Your task to perform on an android device: Is it going to rain tomorrow? Image 0: 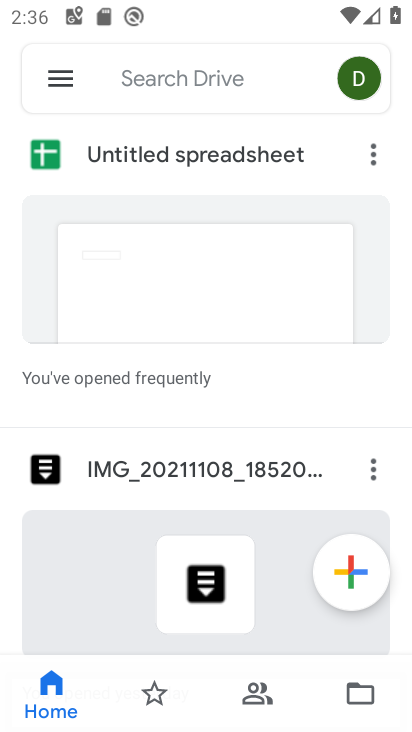
Step 0: press back button
Your task to perform on an android device: Is it going to rain tomorrow? Image 1: 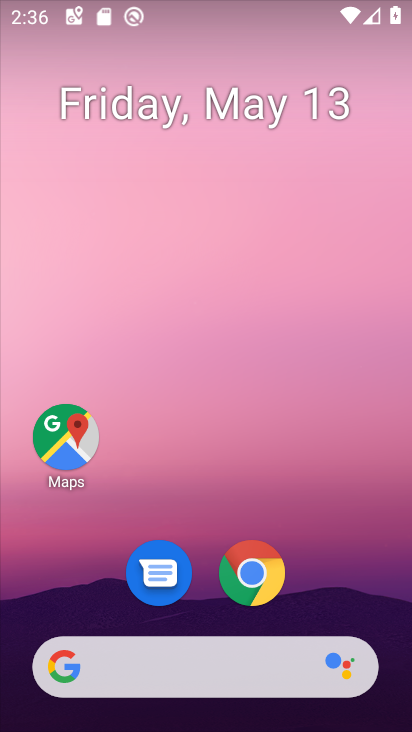
Step 1: click (324, 571)
Your task to perform on an android device: Is it going to rain tomorrow? Image 2: 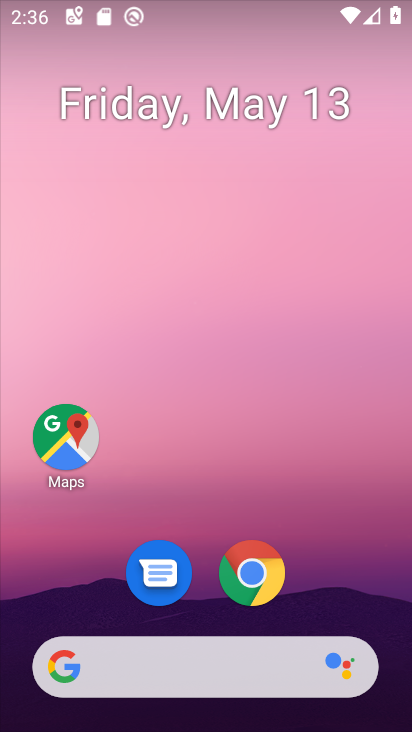
Step 2: click (374, 468)
Your task to perform on an android device: Is it going to rain tomorrow? Image 3: 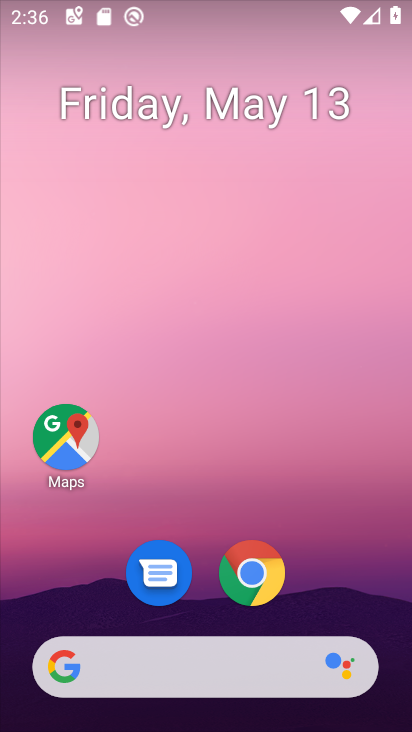
Step 3: drag from (7, 205) to (328, 489)
Your task to perform on an android device: Is it going to rain tomorrow? Image 4: 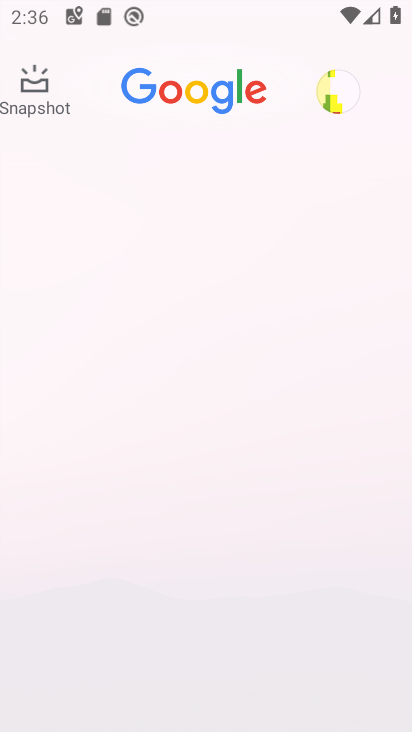
Step 4: drag from (38, 186) to (394, 521)
Your task to perform on an android device: Is it going to rain tomorrow? Image 5: 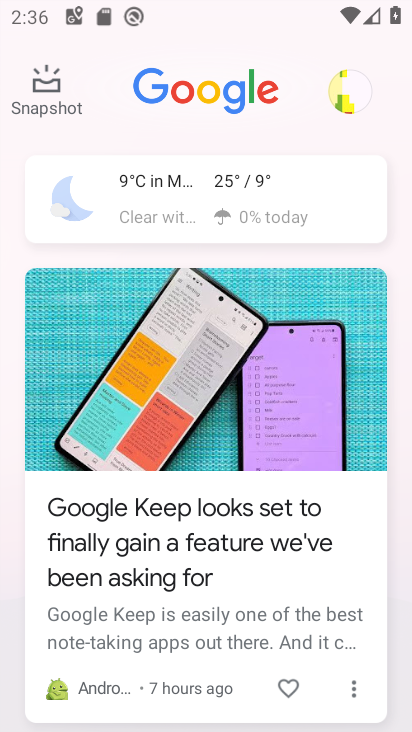
Step 5: click (194, 202)
Your task to perform on an android device: Is it going to rain tomorrow? Image 6: 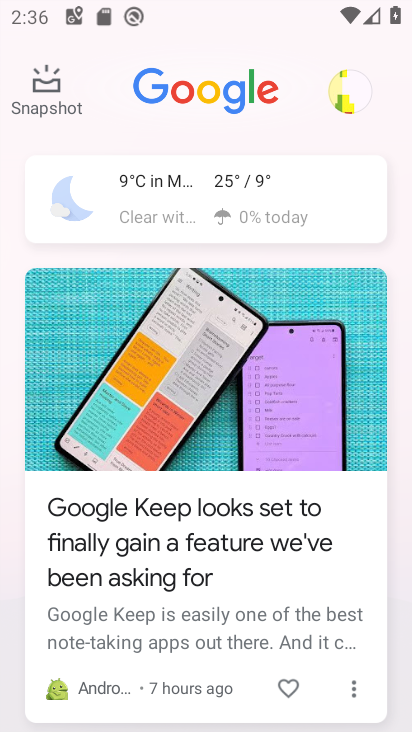
Step 6: click (193, 202)
Your task to perform on an android device: Is it going to rain tomorrow? Image 7: 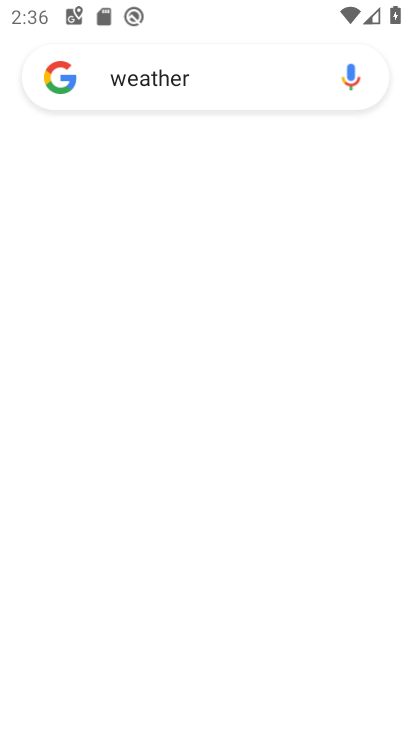
Step 7: click (187, 201)
Your task to perform on an android device: Is it going to rain tomorrow? Image 8: 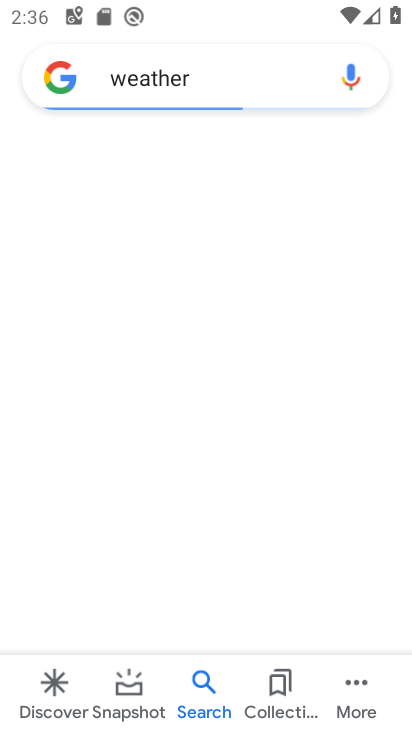
Step 8: click (187, 201)
Your task to perform on an android device: Is it going to rain tomorrow? Image 9: 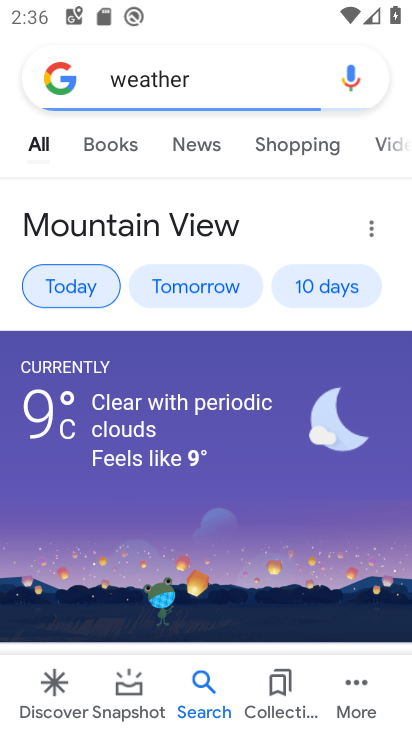
Step 9: click (186, 202)
Your task to perform on an android device: Is it going to rain tomorrow? Image 10: 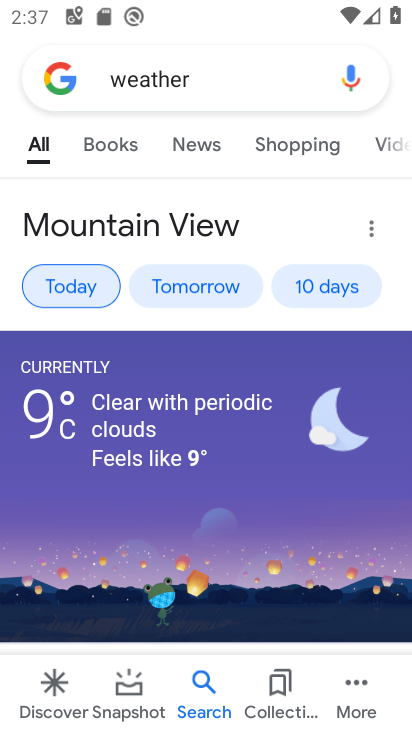
Step 10: drag from (190, 467) to (190, 165)
Your task to perform on an android device: Is it going to rain tomorrow? Image 11: 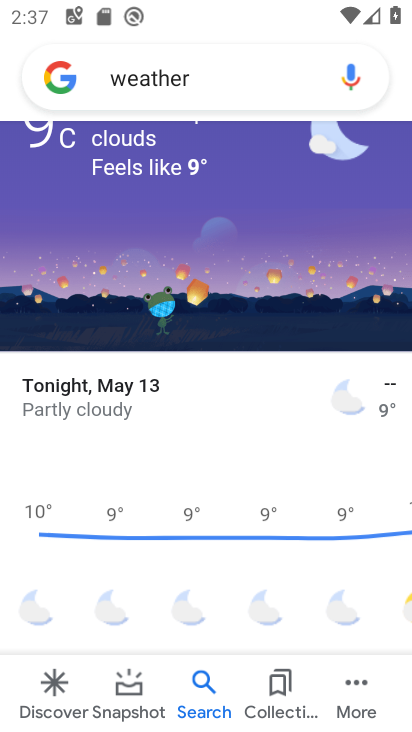
Step 11: click (191, 280)
Your task to perform on an android device: Is it going to rain tomorrow? Image 12: 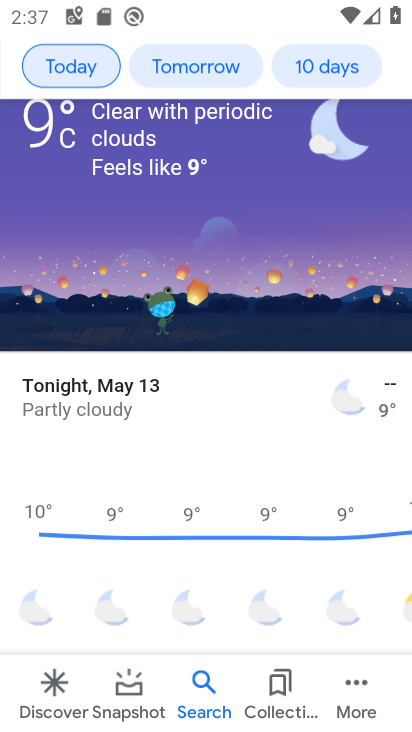
Step 12: click (192, 284)
Your task to perform on an android device: Is it going to rain tomorrow? Image 13: 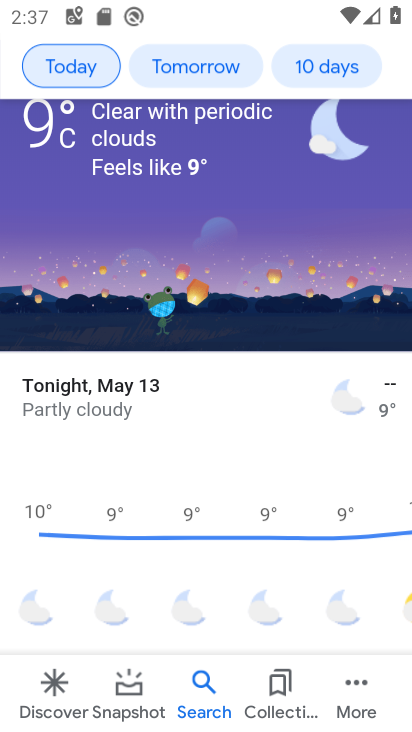
Step 13: task complete